Your task to perform on an android device: Clear the shopping cart on bestbuy. Search for "dell xps" on bestbuy, select the first entry, add it to the cart, then select checkout. Image 0: 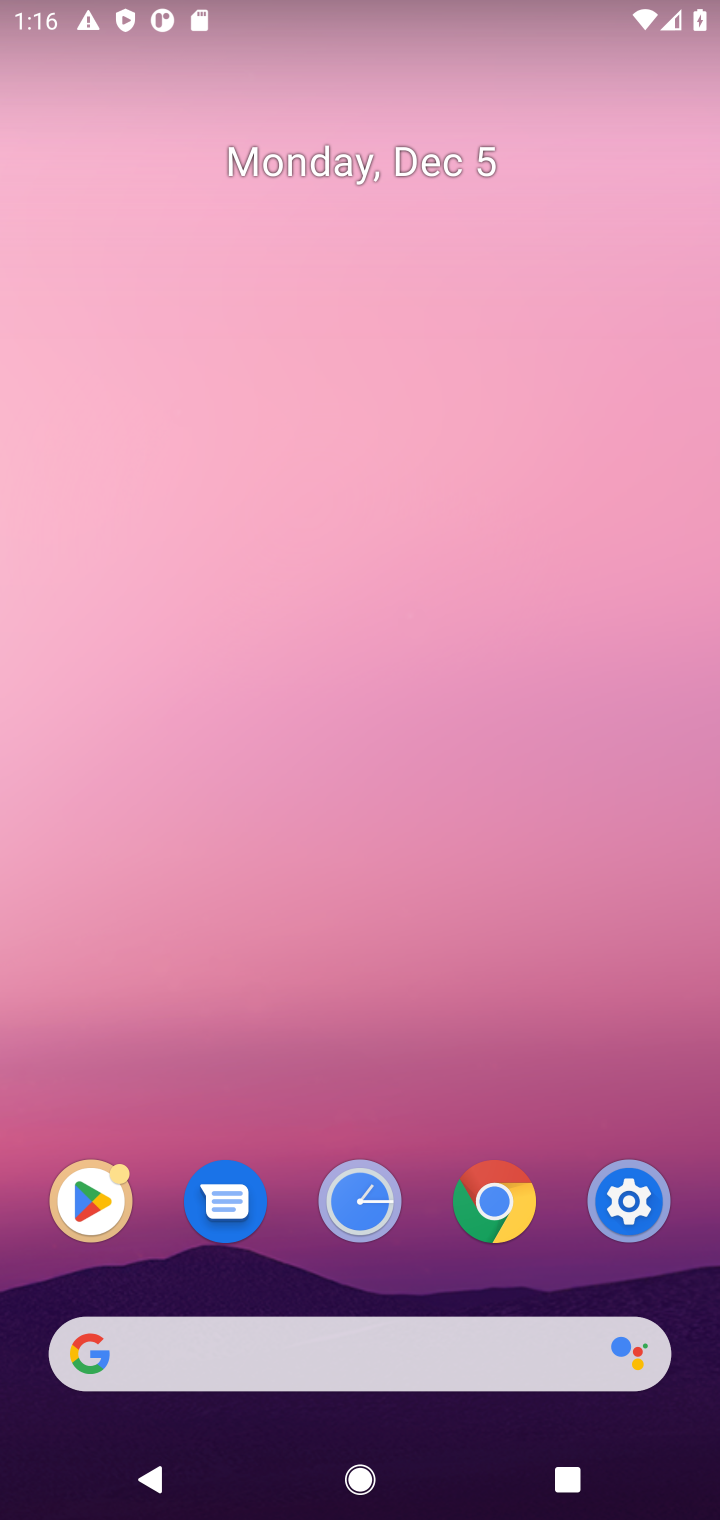
Step 0: click (466, 1200)
Your task to perform on an android device: Clear the shopping cart on bestbuy. Search for "dell xps" on bestbuy, select the first entry, add it to the cart, then select checkout. Image 1: 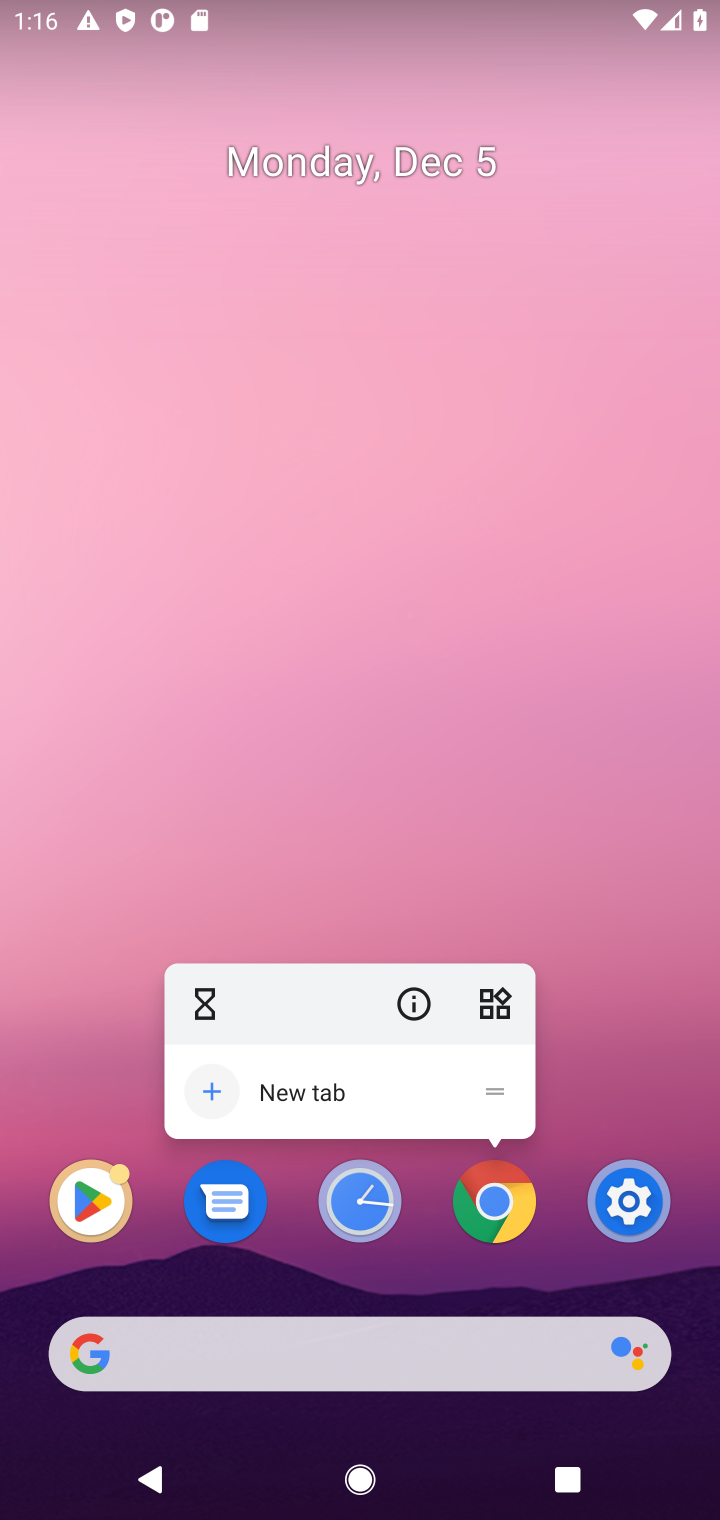
Step 1: click (472, 1204)
Your task to perform on an android device: Clear the shopping cart on bestbuy. Search for "dell xps" on bestbuy, select the first entry, add it to the cart, then select checkout. Image 2: 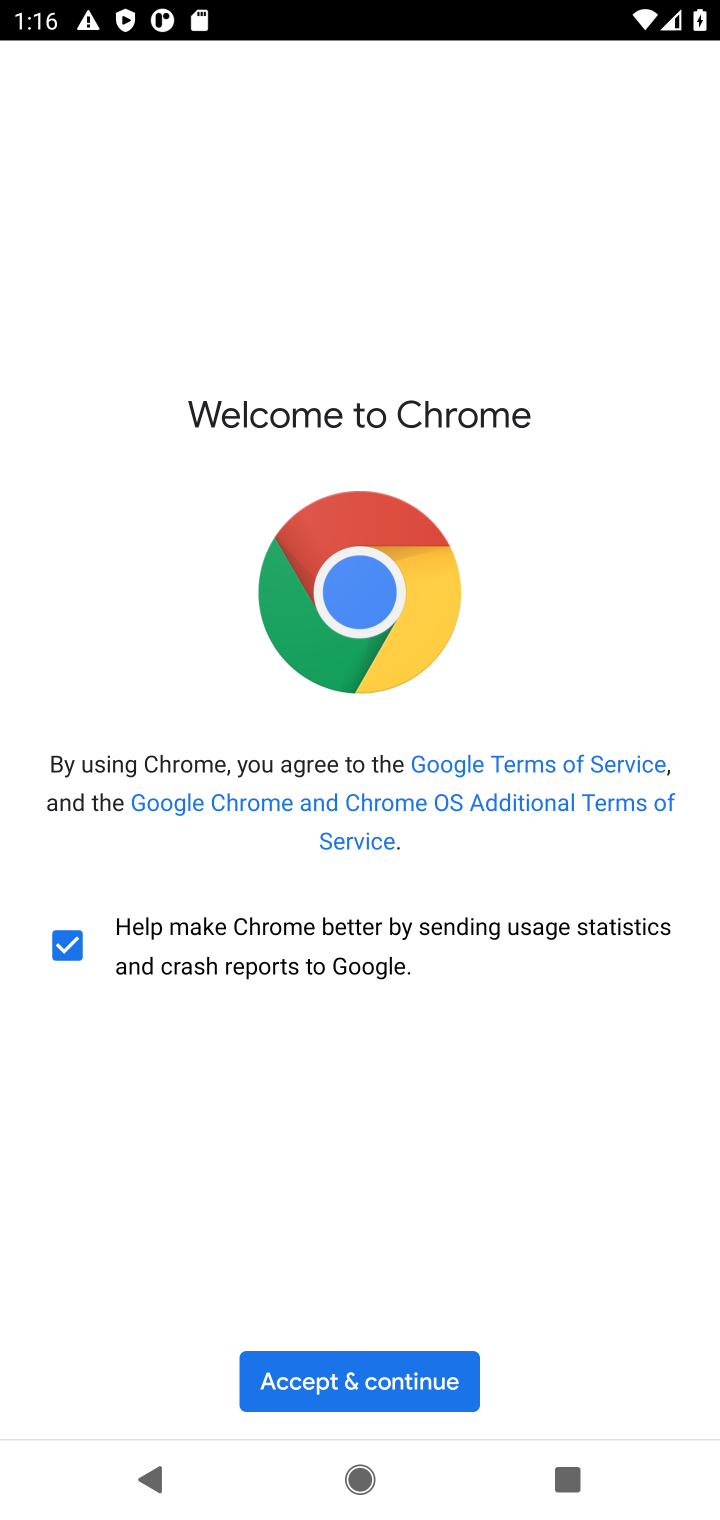
Step 2: click (363, 1378)
Your task to perform on an android device: Clear the shopping cart on bestbuy. Search for "dell xps" on bestbuy, select the first entry, add it to the cart, then select checkout. Image 3: 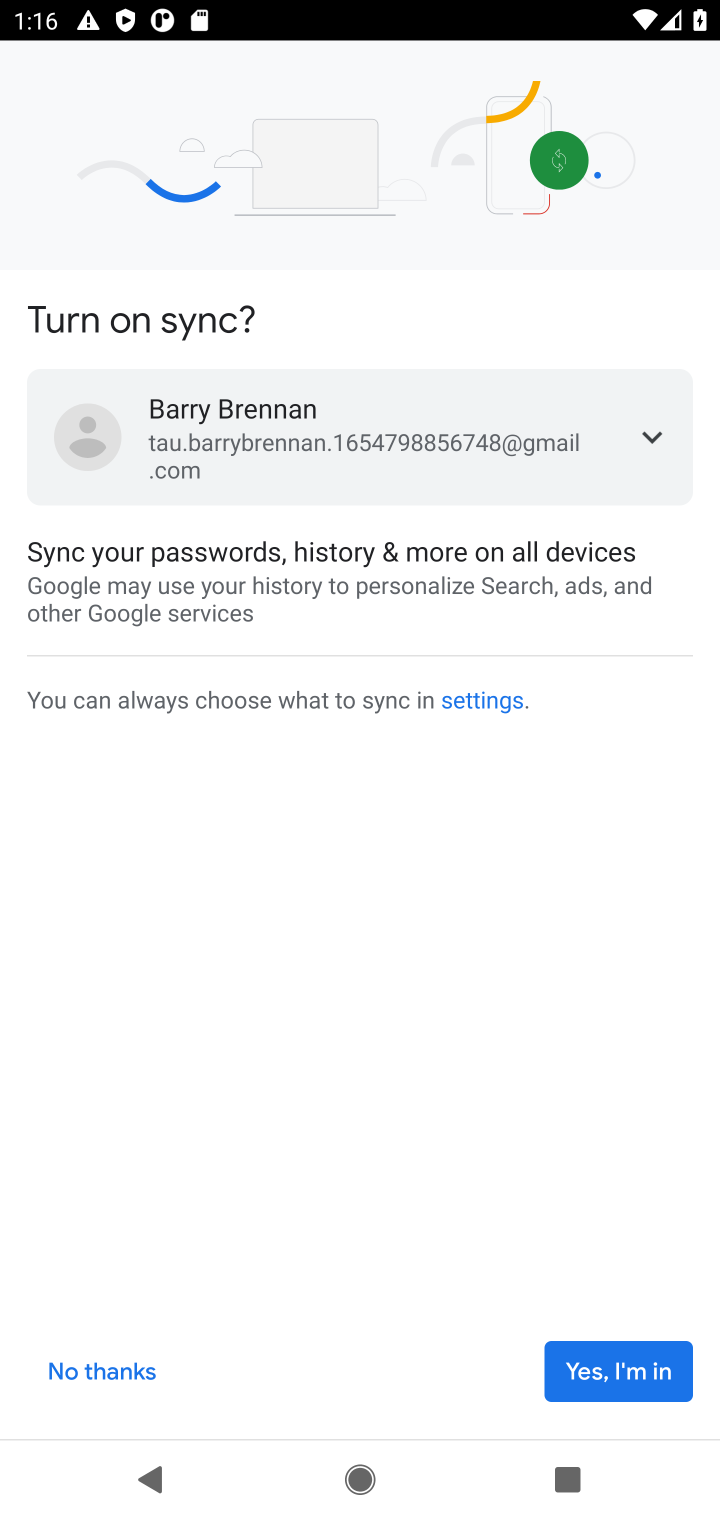
Step 3: click (620, 1382)
Your task to perform on an android device: Clear the shopping cart on bestbuy. Search for "dell xps" on bestbuy, select the first entry, add it to the cart, then select checkout. Image 4: 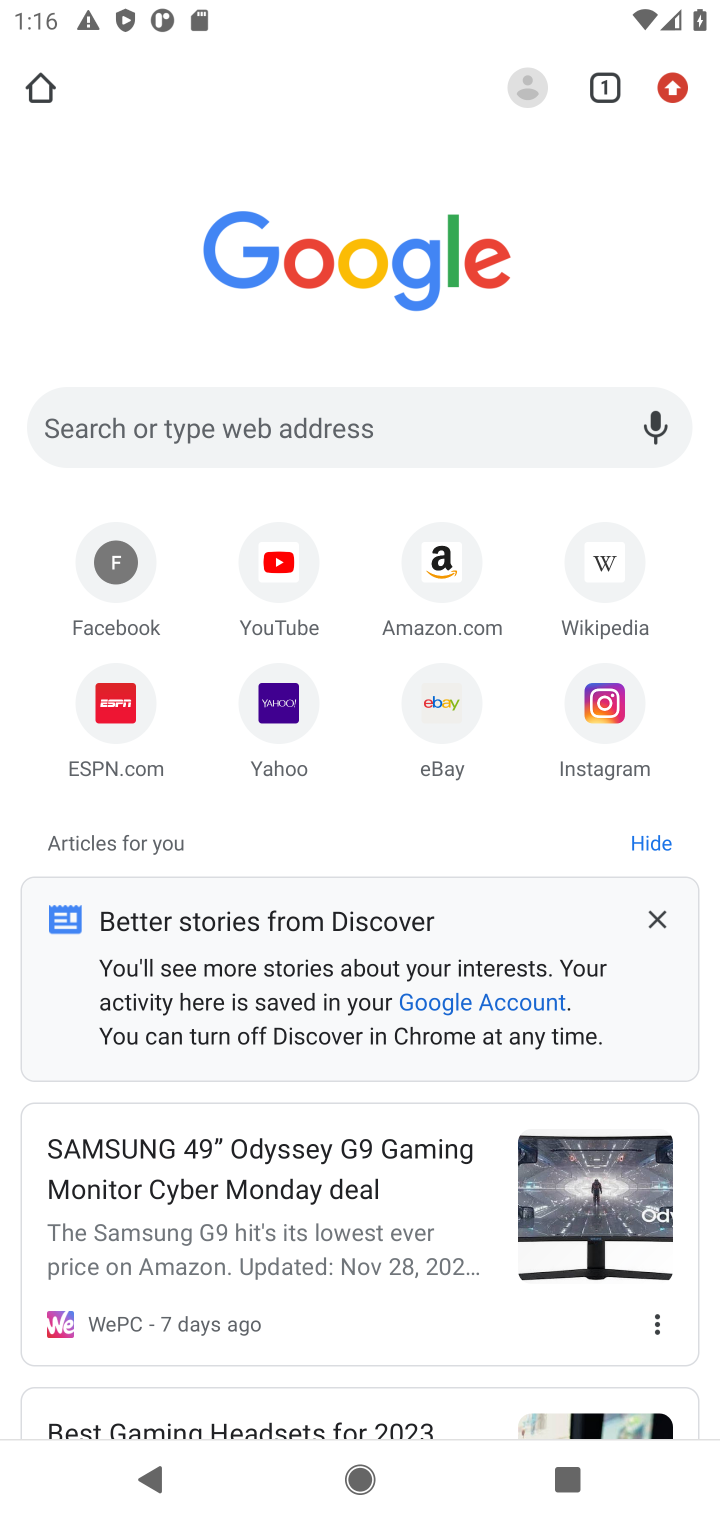
Step 4: click (295, 410)
Your task to perform on an android device: Clear the shopping cart on bestbuy. Search for "dell xps" on bestbuy, select the first entry, add it to the cart, then select checkout. Image 5: 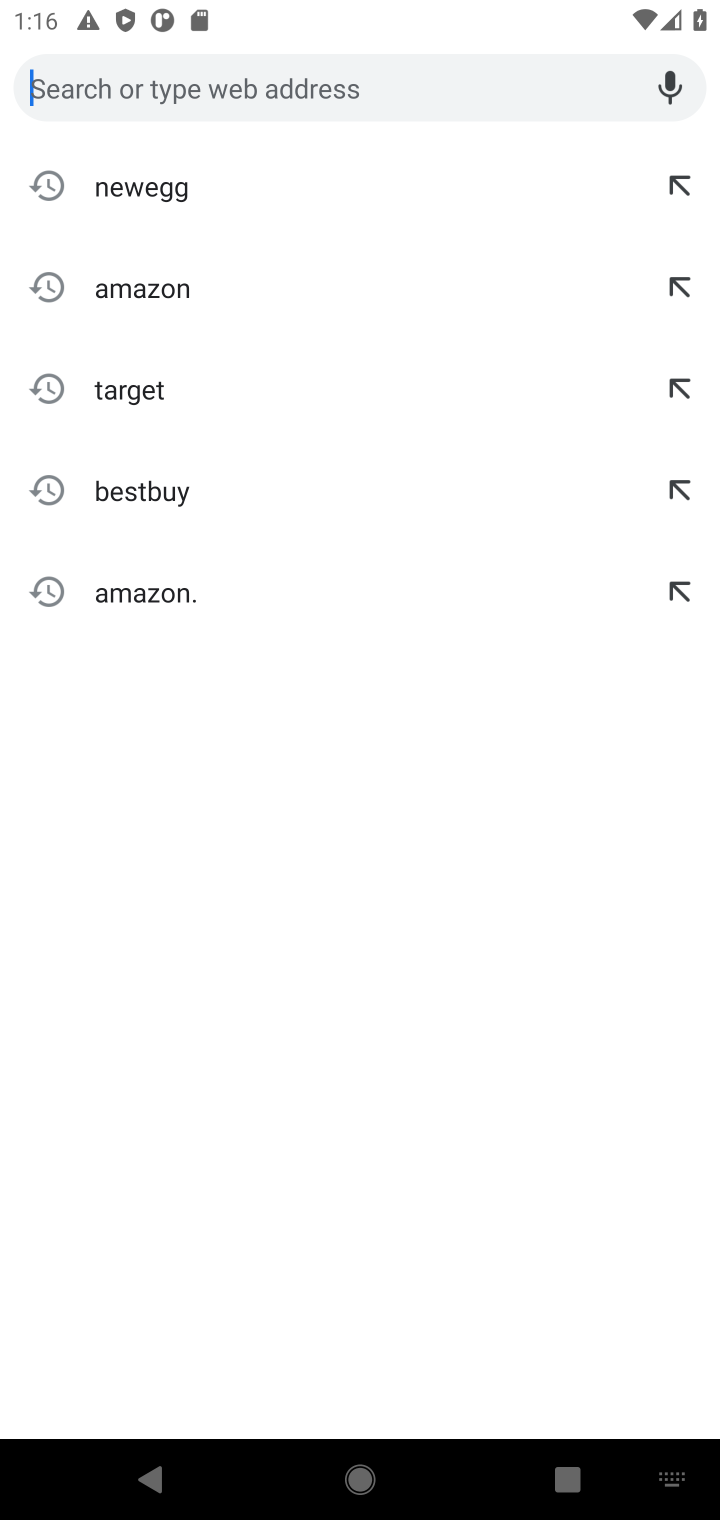
Step 5: type "bestbuy"
Your task to perform on an android device: Clear the shopping cart on bestbuy. Search for "dell xps" on bestbuy, select the first entry, add it to the cart, then select checkout. Image 6: 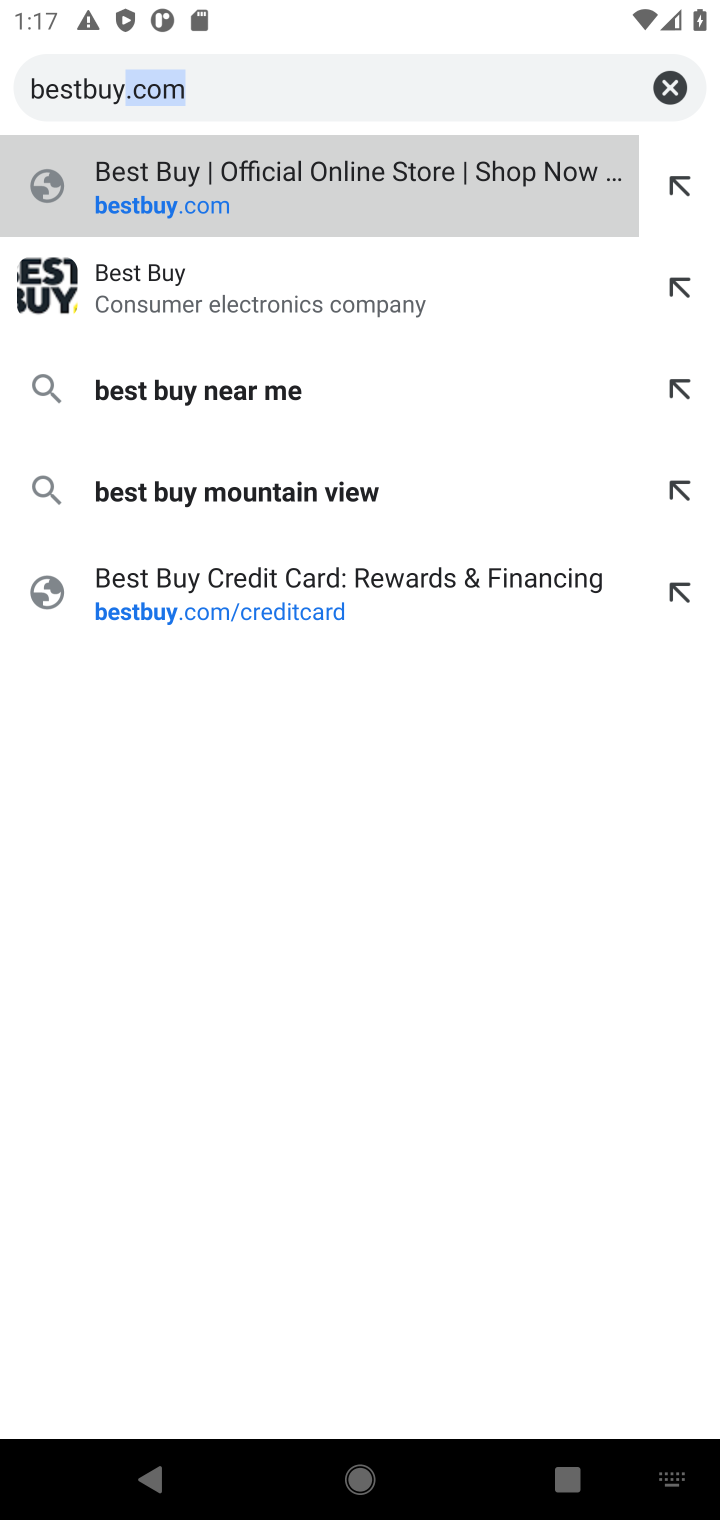
Step 6: click (144, 301)
Your task to perform on an android device: Clear the shopping cart on bestbuy. Search for "dell xps" on bestbuy, select the first entry, add it to the cart, then select checkout. Image 7: 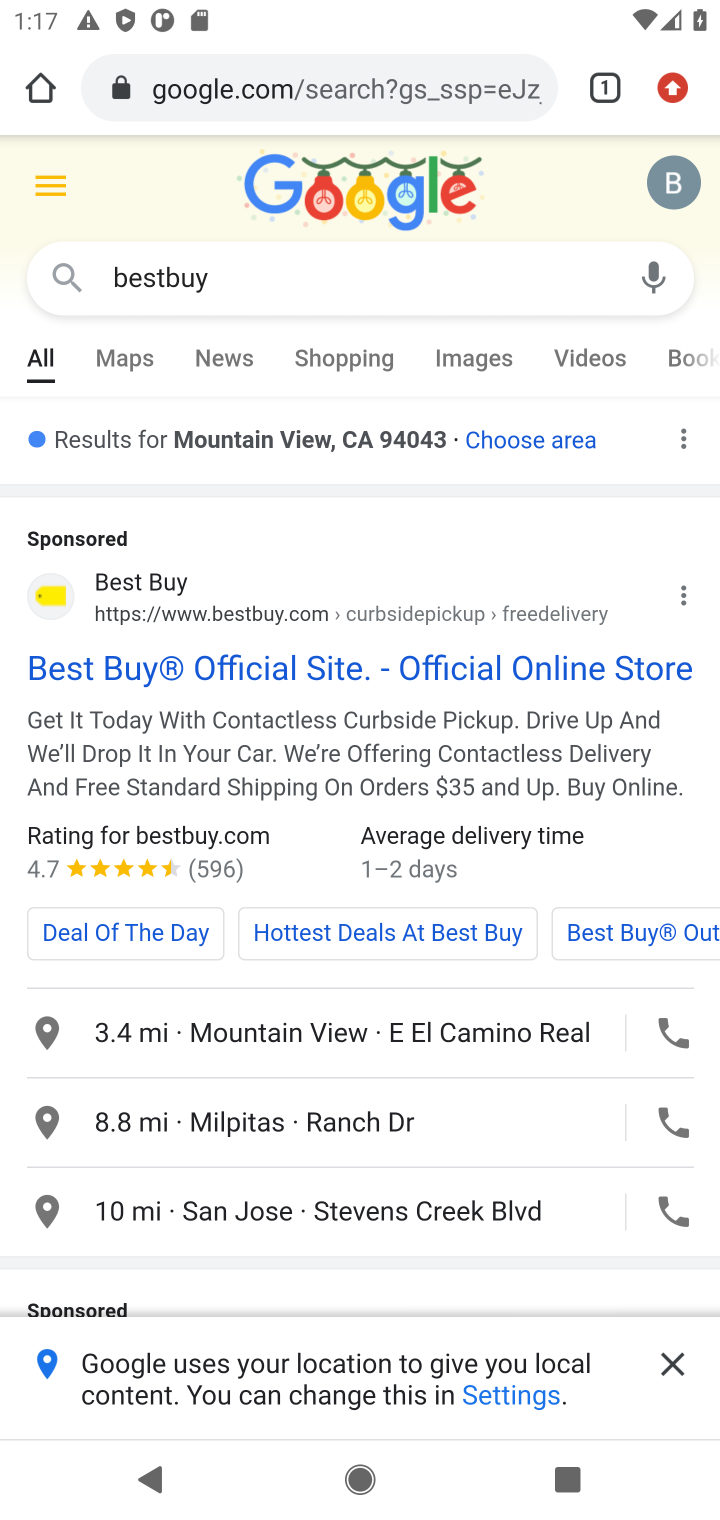
Step 7: click (167, 651)
Your task to perform on an android device: Clear the shopping cart on bestbuy. Search for "dell xps" on bestbuy, select the first entry, add it to the cart, then select checkout. Image 8: 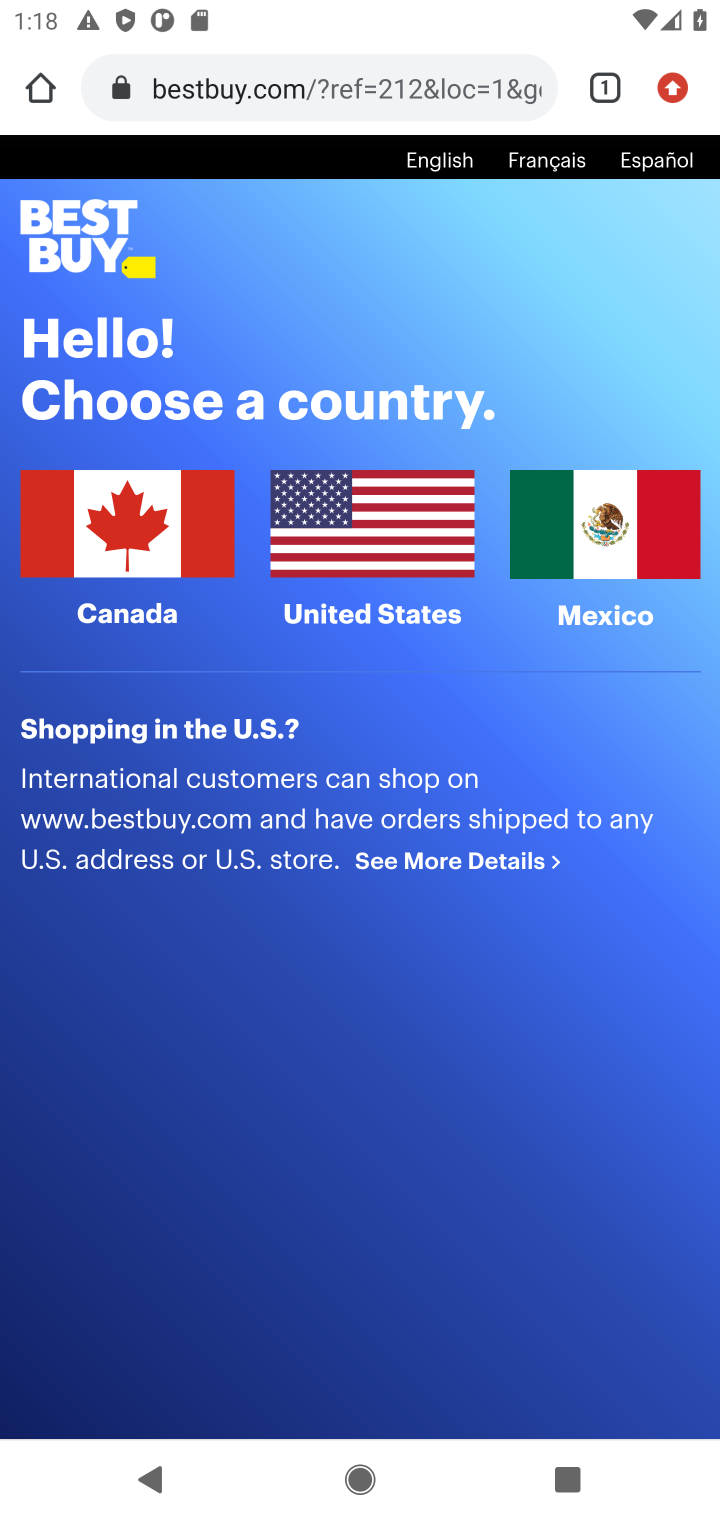
Step 8: click (357, 530)
Your task to perform on an android device: Clear the shopping cart on bestbuy. Search for "dell xps" on bestbuy, select the first entry, add it to the cart, then select checkout. Image 9: 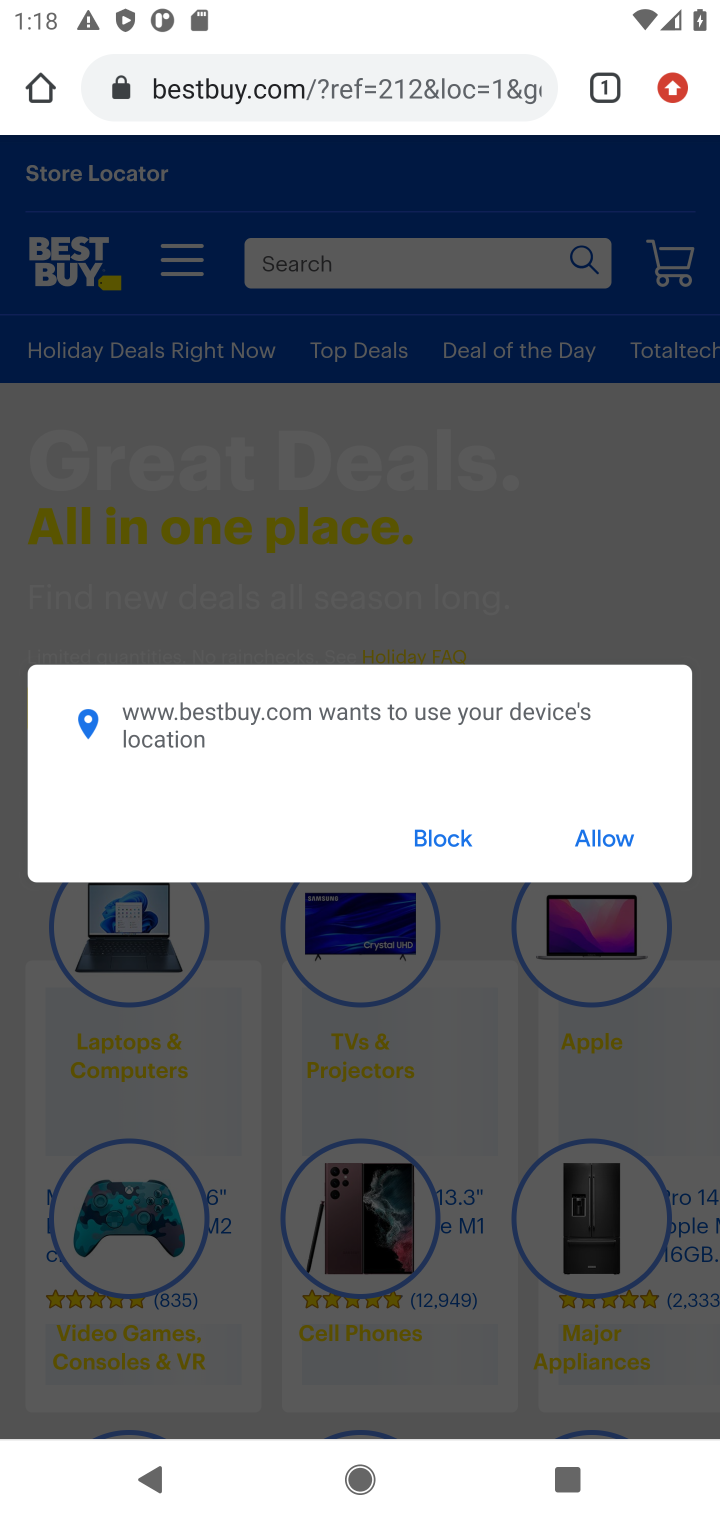
Step 9: click (590, 829)
Your task to perform on an android device: Clear the shopping cart on bestbuy. Search for "dell xps" on bestbuy, select the first entry, add it to the cart, then select checkout. Image 10: 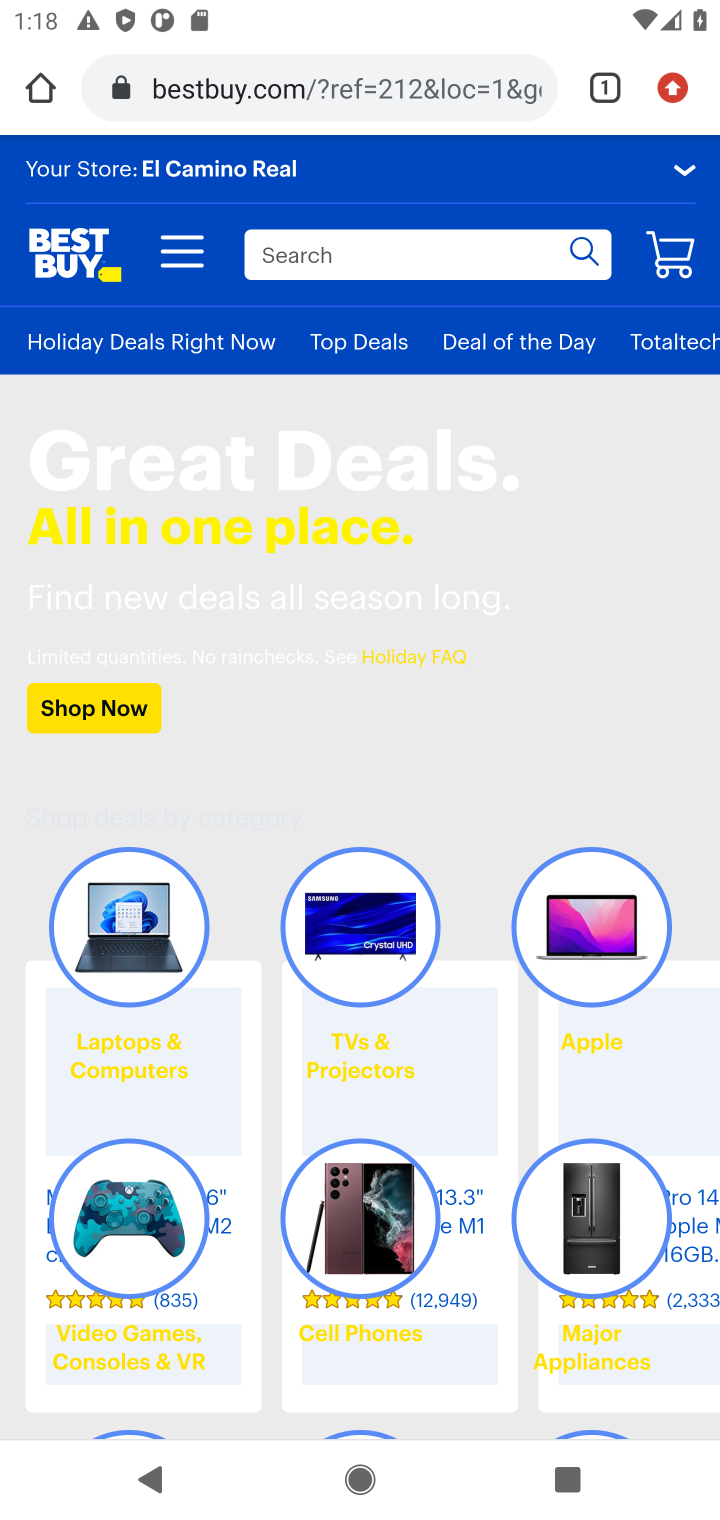
Step 10: click (685, 250)
Your task to perform on an android device: Clear the shopping cart on bestbuy. Search for "dell xps" on bestbuy, select the first entry, add it to the cart, then select checkout. Image 11: 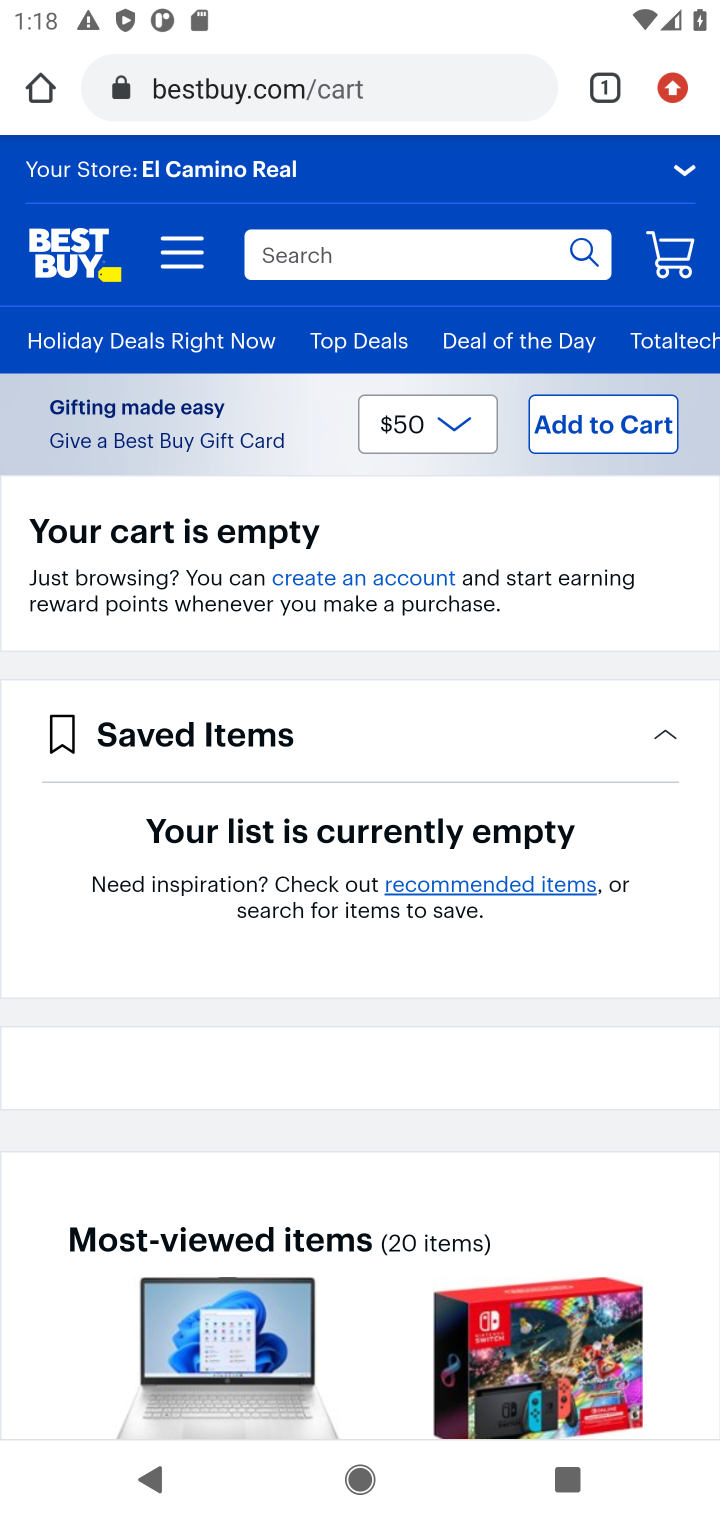
Step 11: click (435, 267)
Your task to perform on an android device: Clear the shopping cart on bestbuy. Search for "dell xps" on bestbuy, select the first entry, add it to the cart, then select checkout. Image 12: 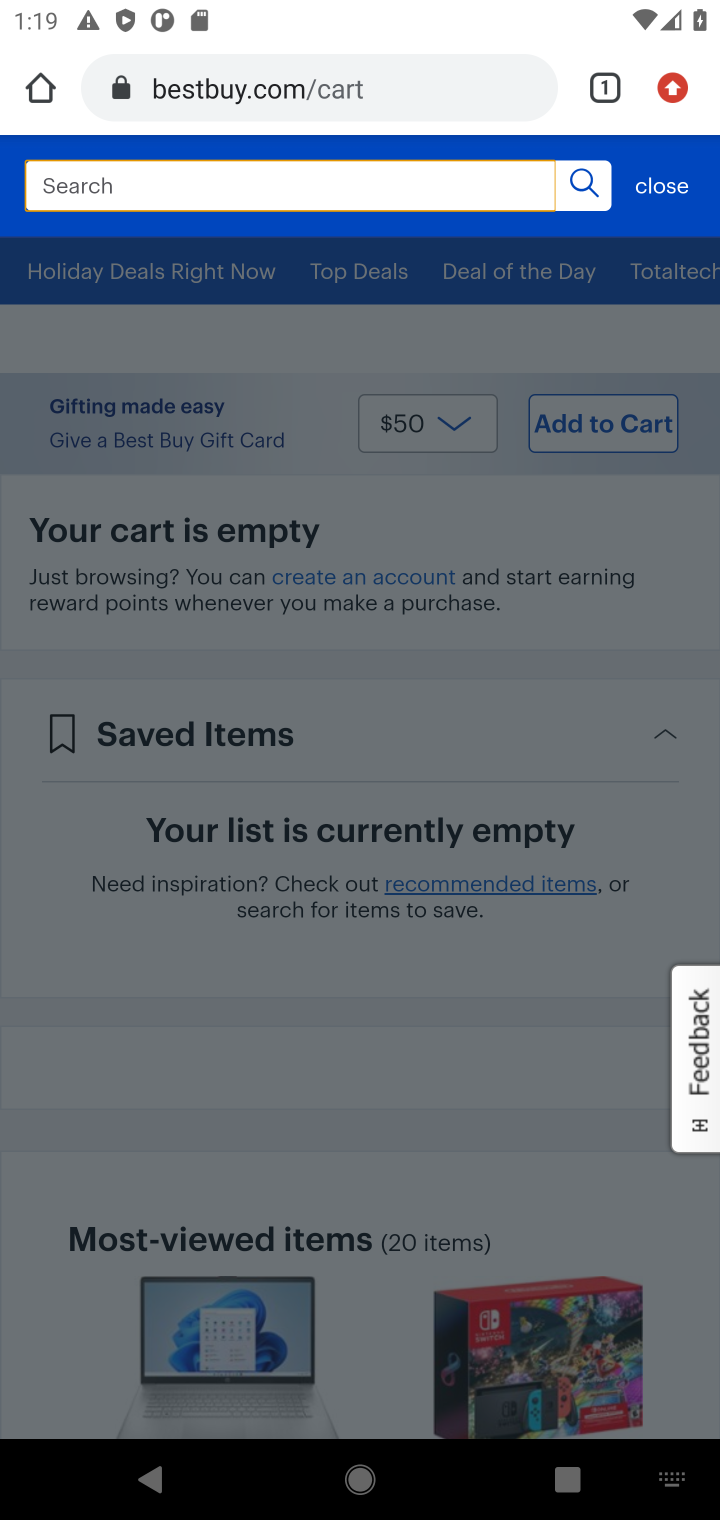
Step 12: type "dell xps"
Your task to perform on an android device: Clear the shopping cart on bestbuy. Search for "dell xps" on bestbuy, select the first entry, add it to the cart, then select checkout. Image 13: 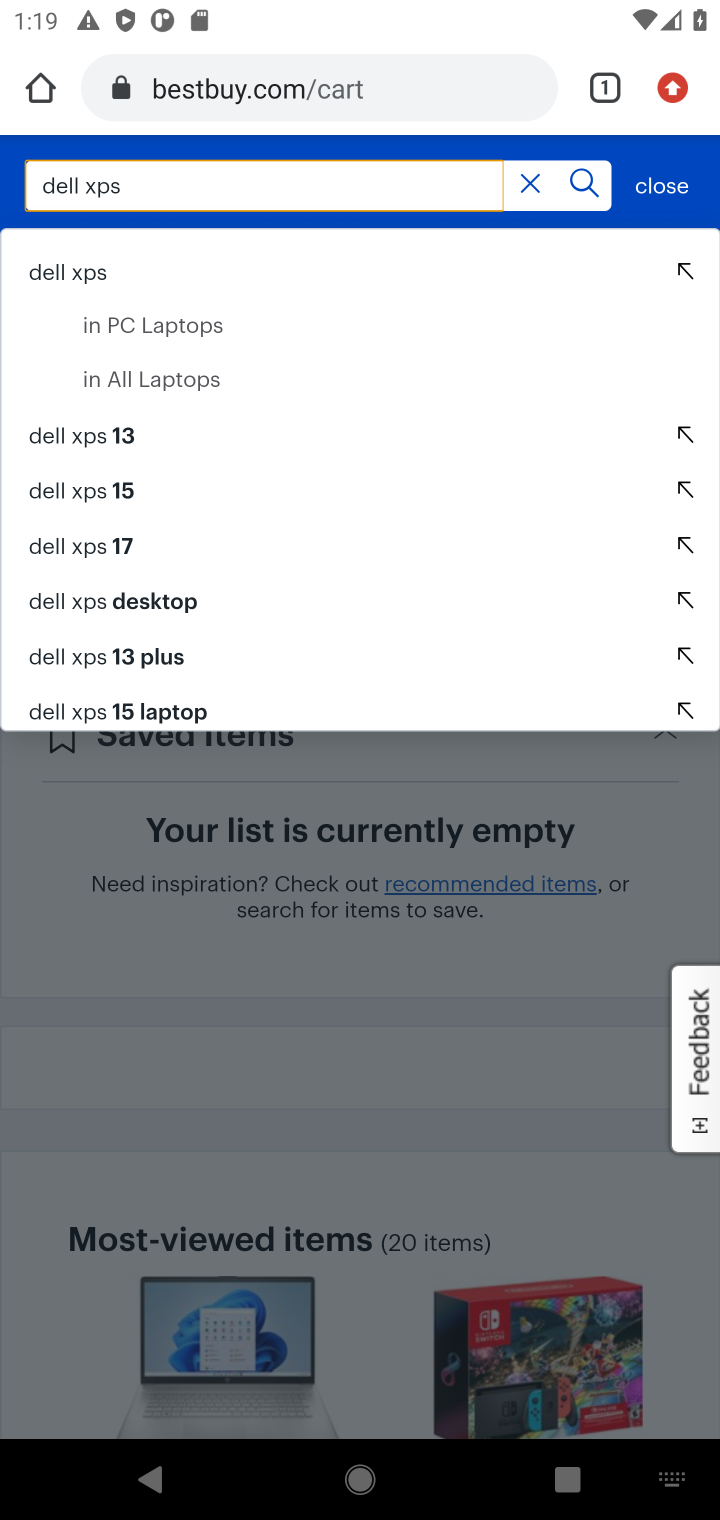
Step 13: click (90, 265)
Your task to perform on an android device: Clear the shopping cart on bestbuy. Search for "dell xps" on bestbuy, select the first entry, add it to the cart, then select checkout. Image 14: 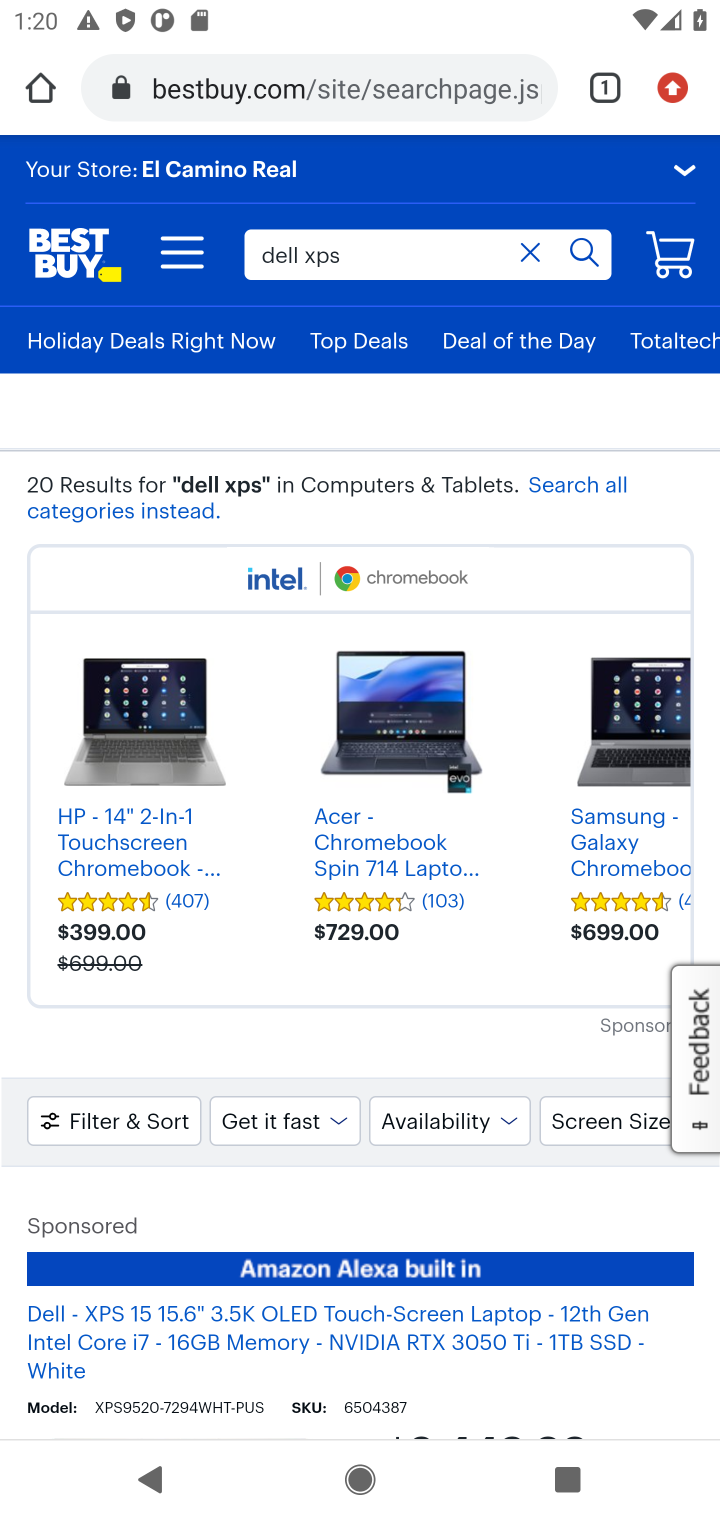
Step 14: click (384, 561)
Your task to perform on an android device: Clear the shopping cart on bestbuy. Search for "dell xps" on bestbuy, select the first entry, add it to the cart, then select checkout. Image 15: 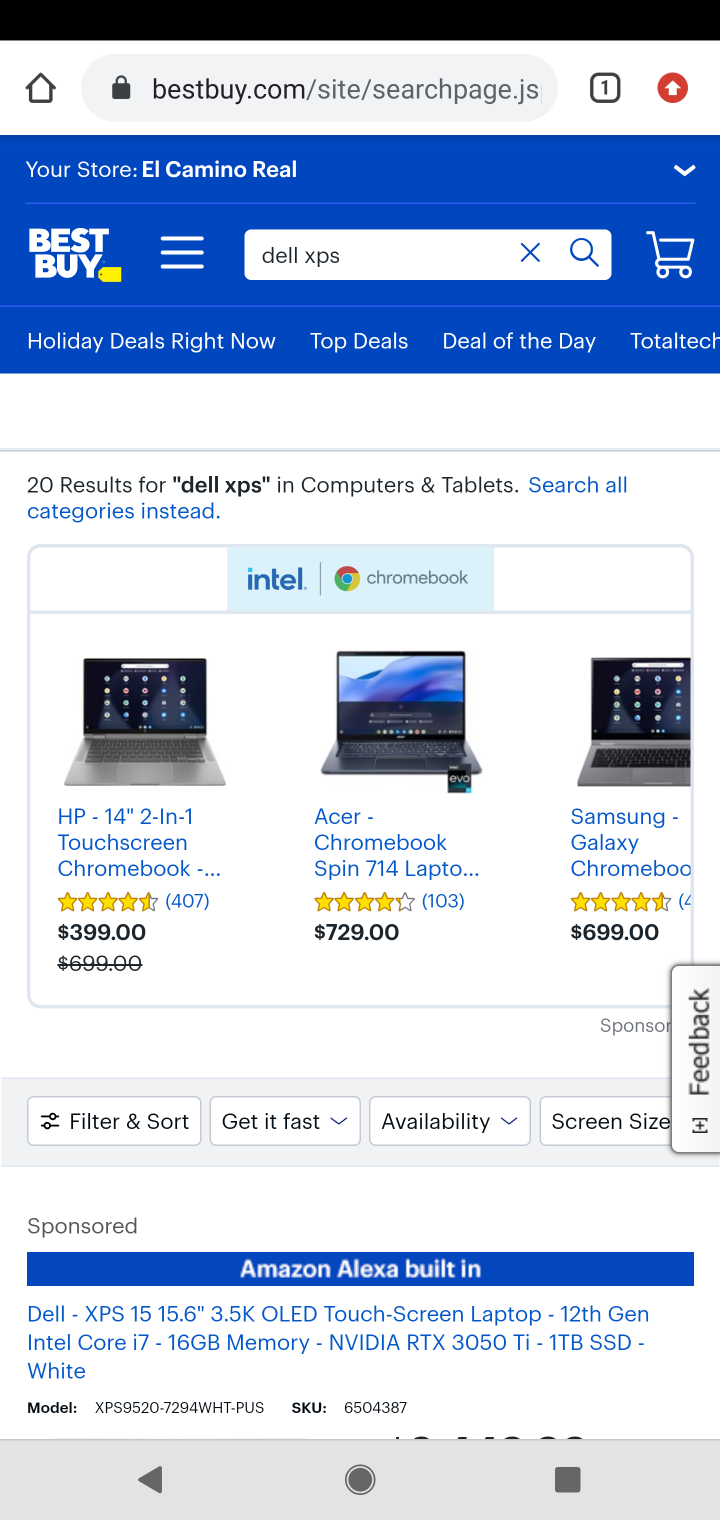
Step 15: click (346, 520)
Your task to perform on an android device: Clear the shopping cart on bestbuy. Search for "dell xps" on bestbuy, select the first entry, add it to the cart, then select checkout. Image 16: 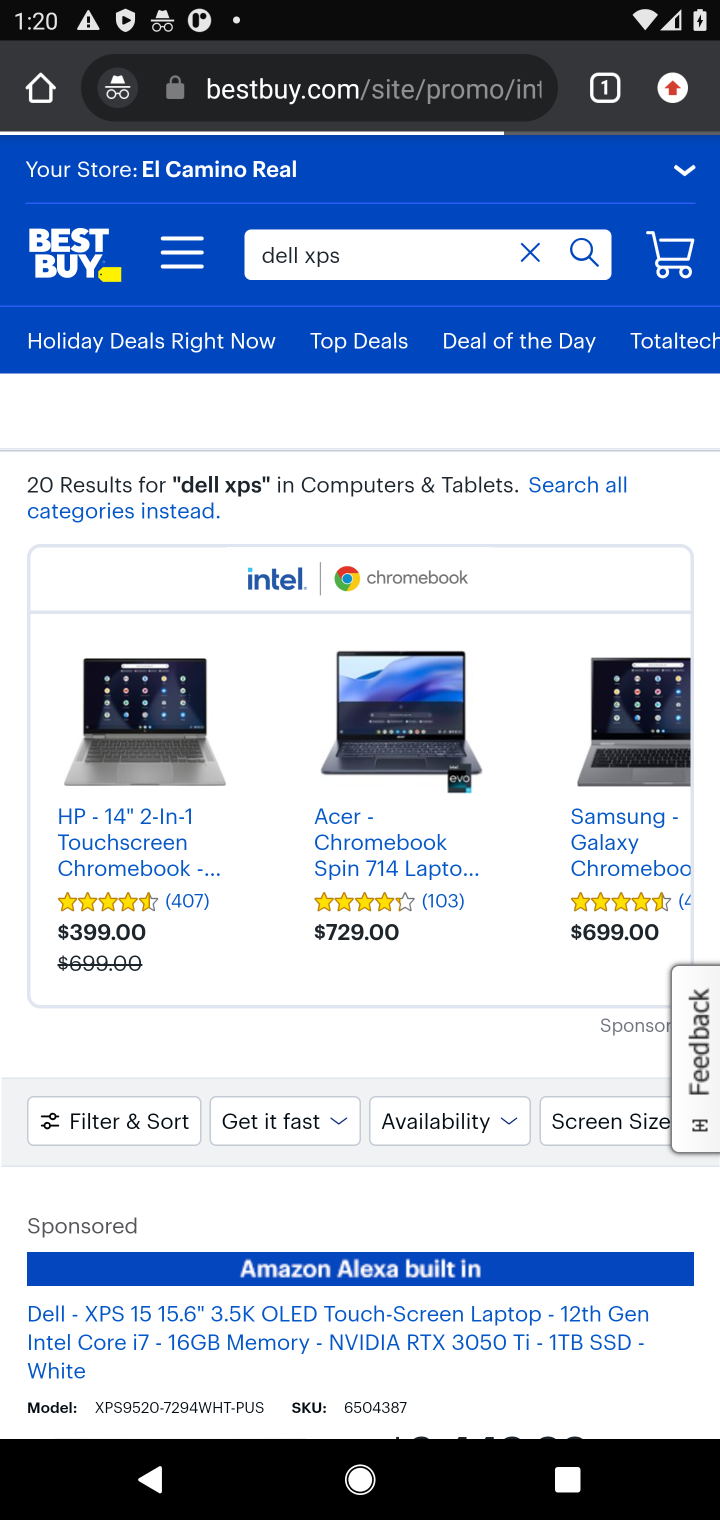
Step 16: drag from (462, 648) to (480, 564)
Your task to perform on an android device: Clear the shopping cart on bestbuy. Search for "dell xps" on bestbuy, select the first entry, add it to the cart, then select checkout. Image 17: 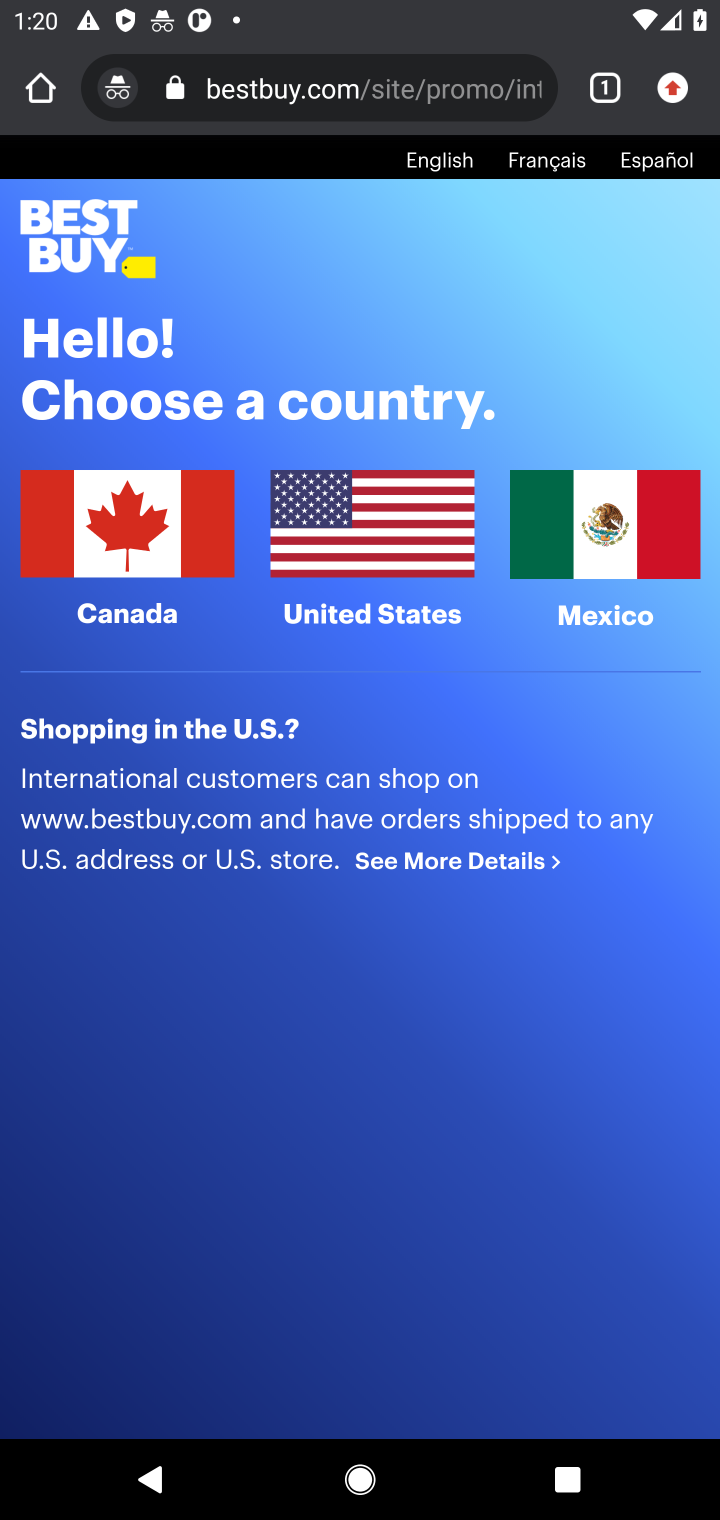
Step 17: click (402, 543)
Your task to perform on an android device: Clear the shopping cart on bestbuy. Search for "dell xps" on bestbuy, select the first entry, add it to the cart, then select checkout. Image 18: 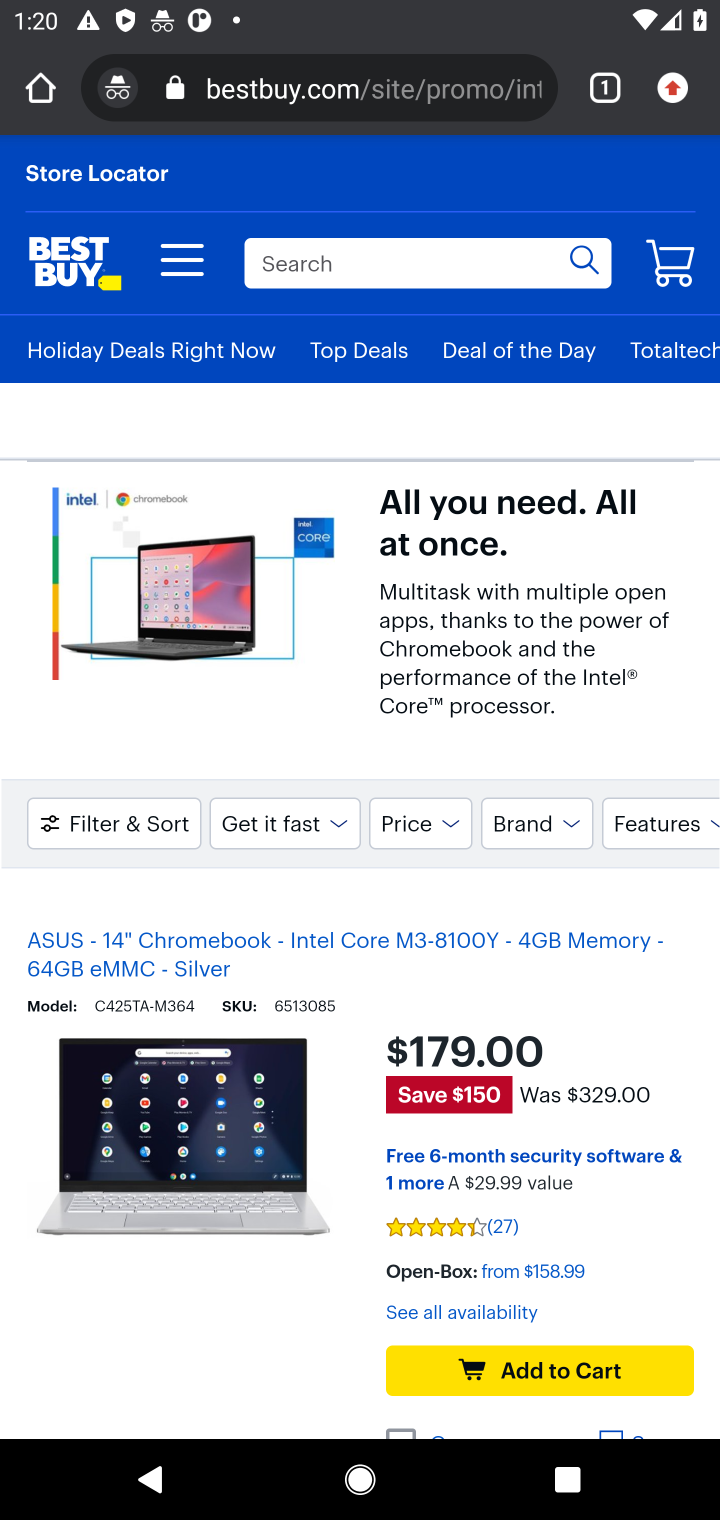
Step 18: click (530, 1370)
Your task to perform on an android device: Clear the shopping cart on bestbuy. Search for "dell xps" on bestbuy, select the first entry, add it to the cart, then select checkout. Image 19: 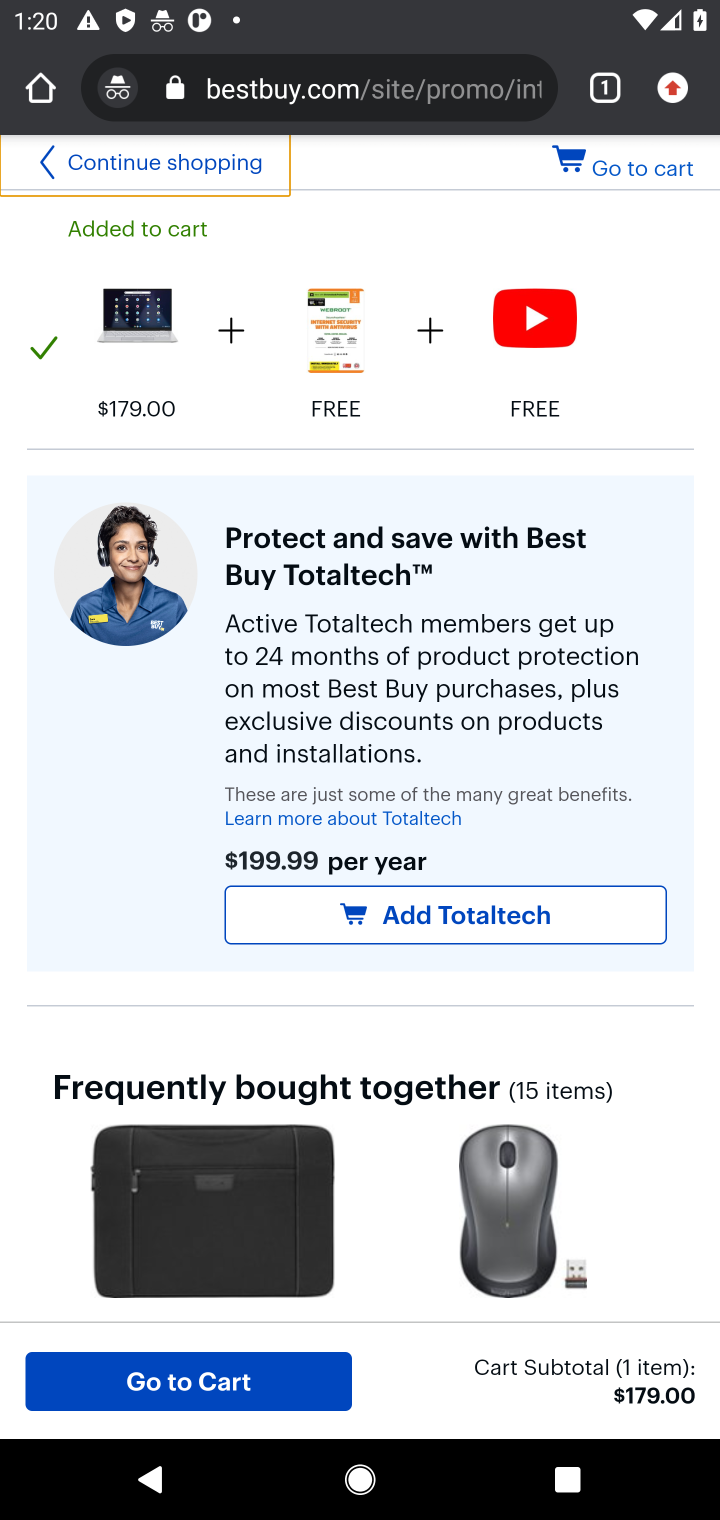
Step 19: click (303, 1371)
Your task to perform on an android device: Clear the shopping cart on bestbuy. Search for "dell xps" on bestbuy, select the first entry, add it to the cart, then select checkout. Image 20: 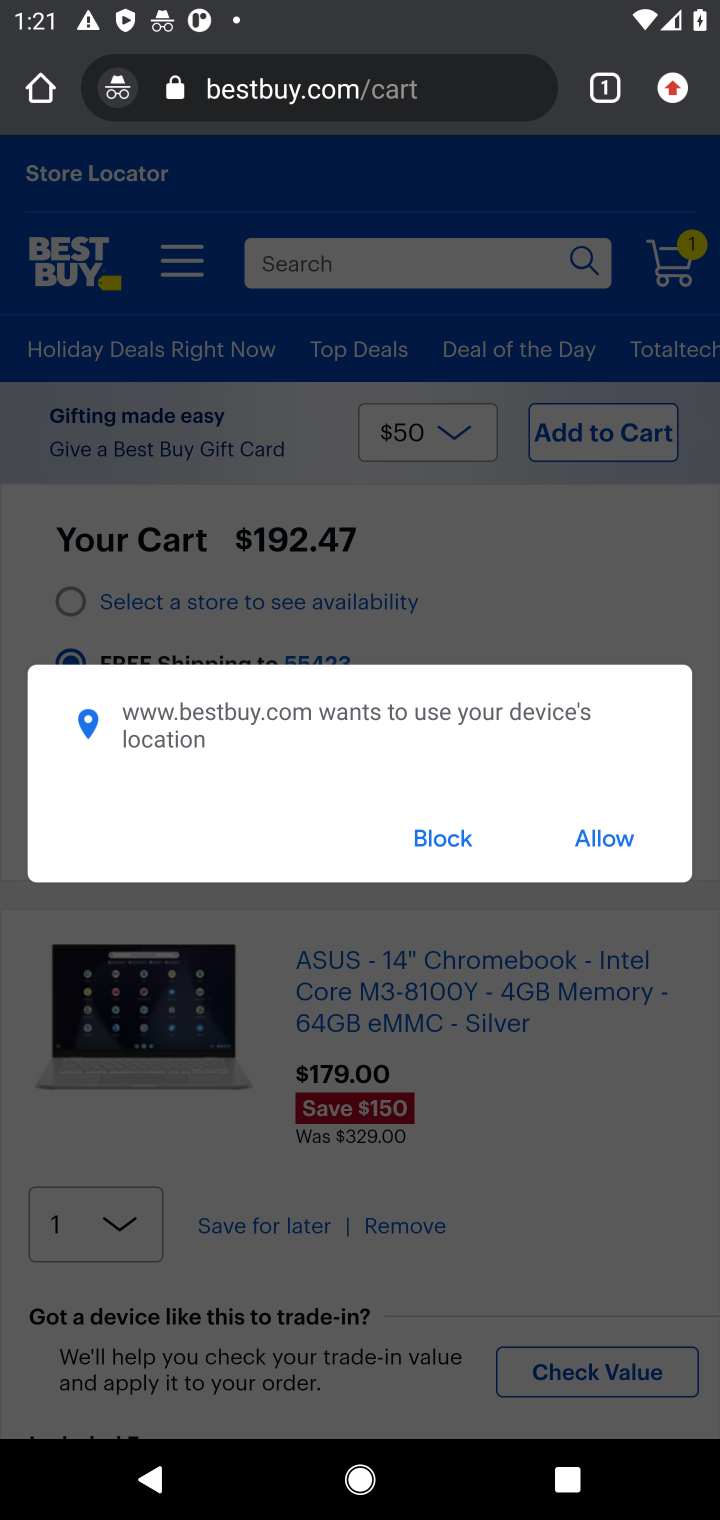
Step 20: click (564, 844)
Your task to perform on an android device: Clear the shopping cart on bestbuy. Search for "dell xps" on bestbuy, select the first entry, add it to the cart, then select checkout. Image 21: 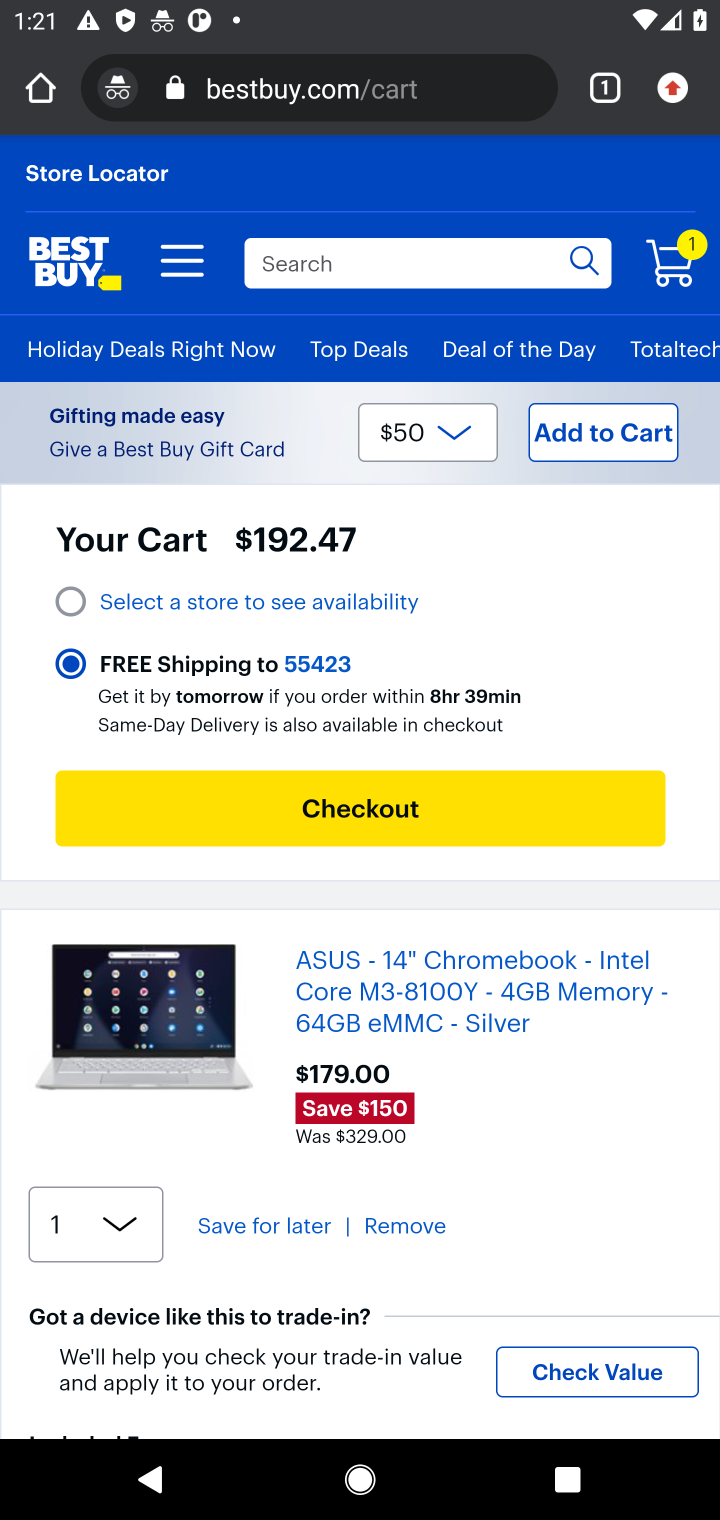
Step 21: click (474, 815)
Your task to perform on an android device: Clear the shopping cart on bestbuy. Search for "dell xps" on bestbuy, select the first entry, add it to the cart, then select checkout. Image 22: 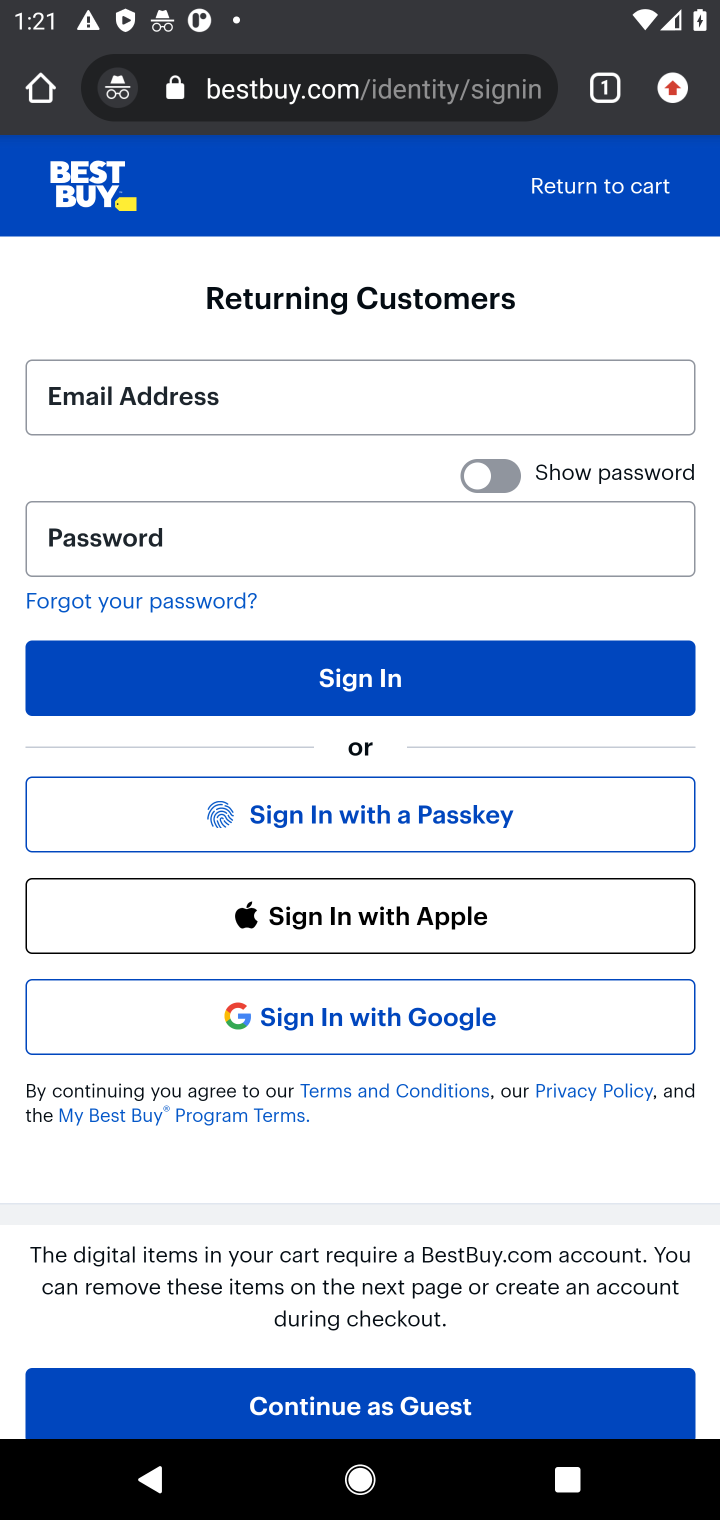
Step 22: task complete